Your task to perform on an android device: turn notification dots on Image 0: 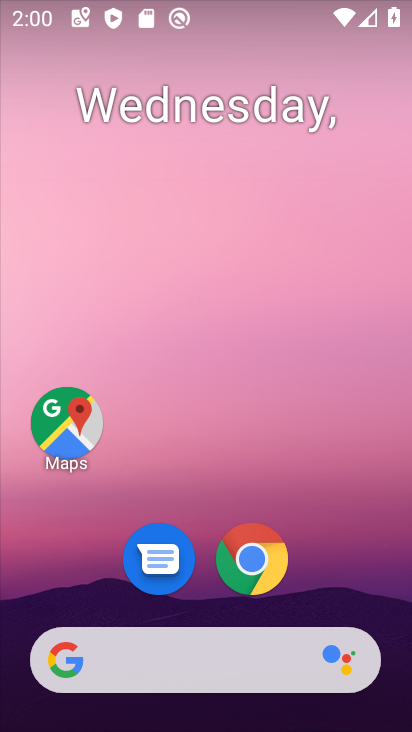
Step 0: press home button
Your task to perform on an android device: turn notification dots on Image 1: 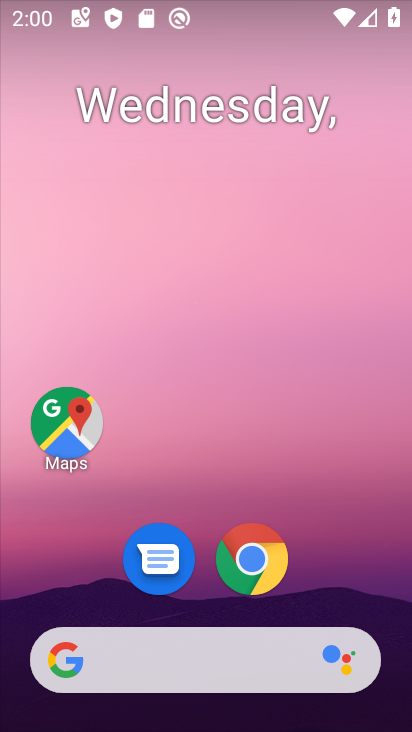
Step 1: drag from (364, 576) to (299, 36)
Your task to perform on an android device: turn notification dots on Image 2: 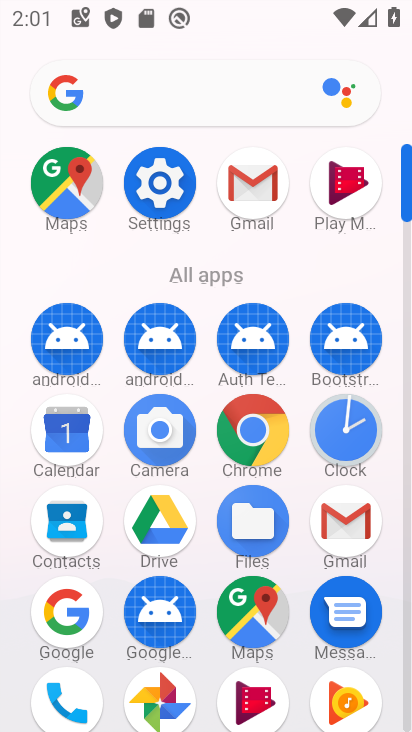
Step 2: click (152, 205)
Your task to perform on an android device: turn notification dots on Image 3: 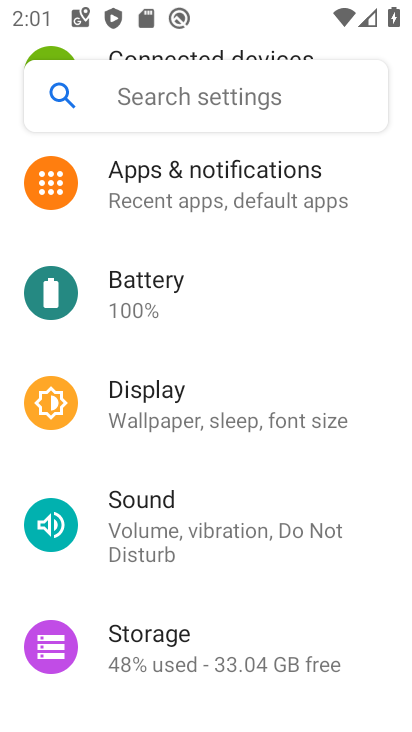
Step 3: drag from (221, 619) to (290, 237)
Your task to perform on an android device: turn notification dots on Image 4: 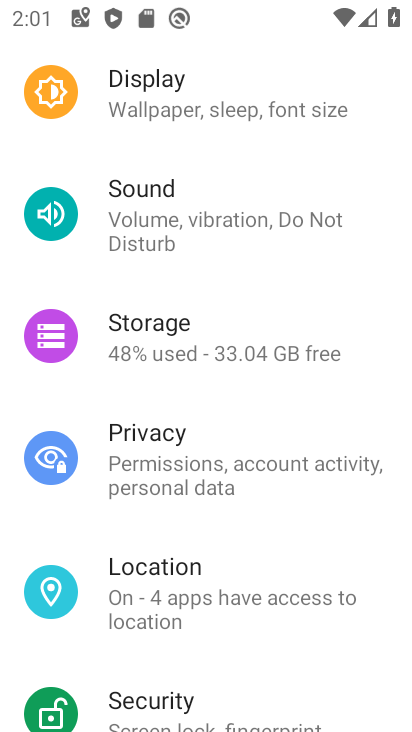
Step 4: drag from (201, 584) to (298, 149)
Your task to perform on an android device: turn notification dots on Image 5: 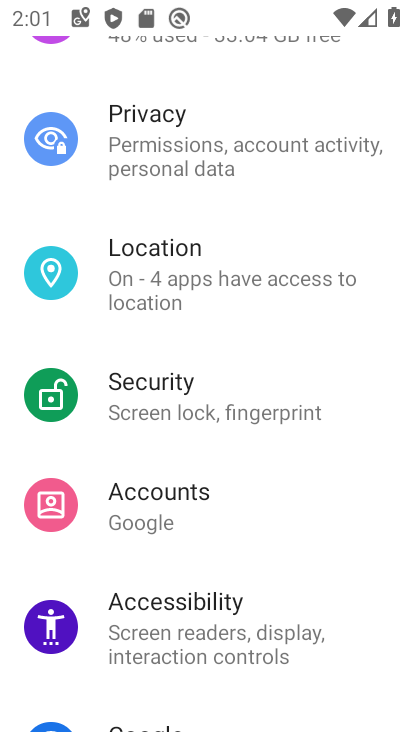
Step 5: drag from (241, 464) to (220, 722)
Your task to perform on an android device: turn notification dots on Image 6: 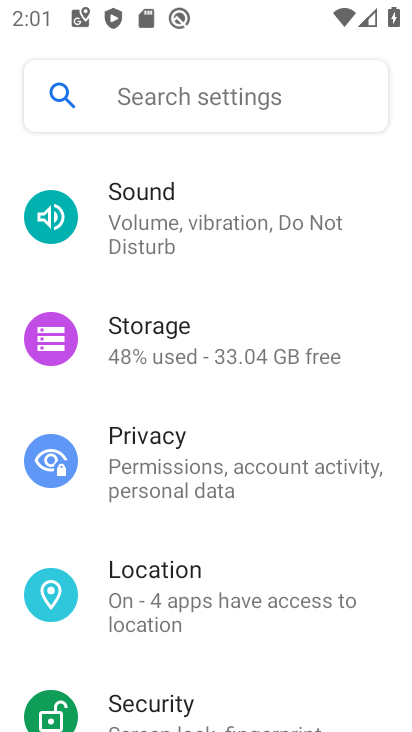
Step 6: drag from (227, 220) to (203, 569)
Your task to perform on an android device: turn notification dots on Image 7: 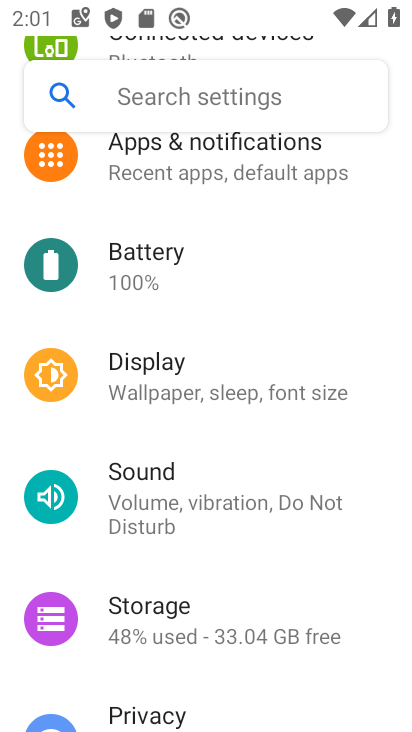
Step 7: click (288, 152)
Your task to perform on an android device: turn notification dots on Image 8: 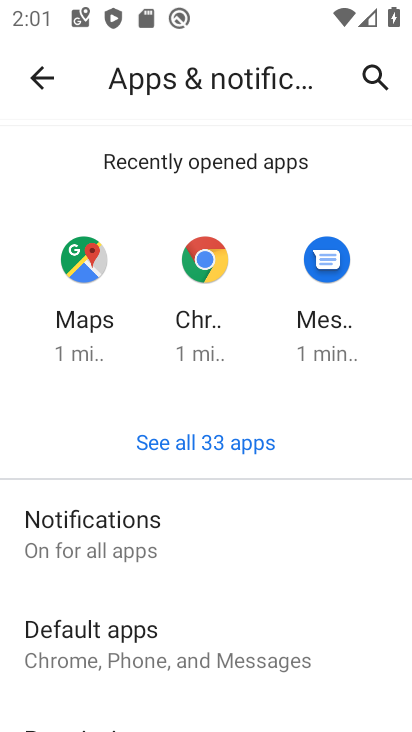
Step 8: click (154, 517)
Your task to perform on an android device: turn notification dots on Image 9: 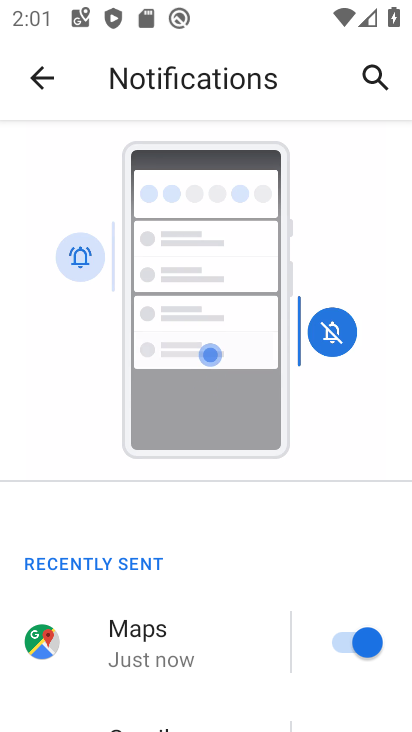
Step 9: drag from (208, 488) to (253, 57)
Your task to perform on an android device: turn notification dots on Image 10: 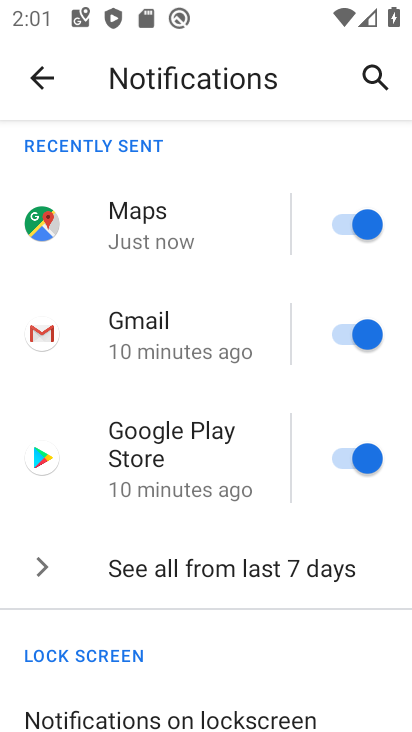
Step 10: drag from (215, 503) to (341, 65)
Your task to perform on an android device: turn notification dots on Image 11: 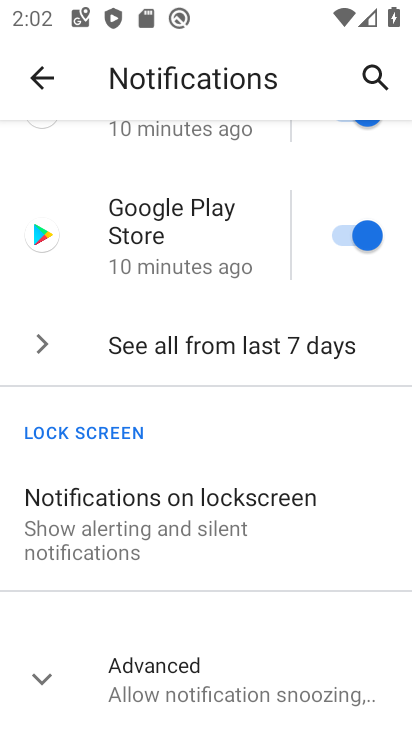
Step 11: drag from (162, 606) to (181, 421)
Your task to perform on an android device: turn notification dots on Image 12: 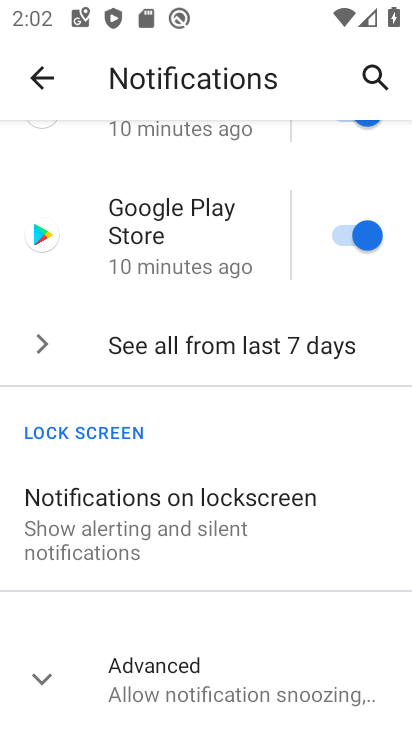
Step 12: click (212, 660)
Your task to perform on an android device: turn notification dots on Image 13: 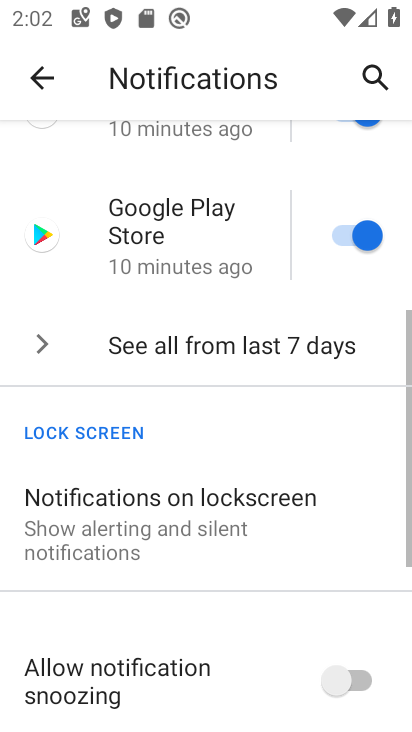
Step 13: drag from (277, 617) to (230, 233)
Your task to perform on an android device: turn notification dots on Image 14: 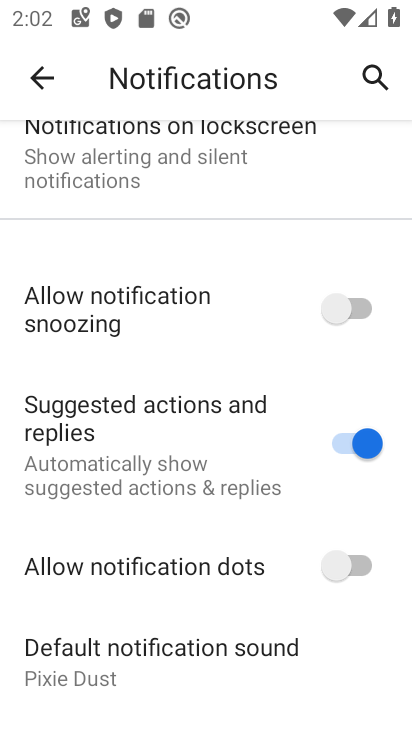
Step 14: click (201, 556)
Your task to perform on an android device: turn notification dots on Image 15: 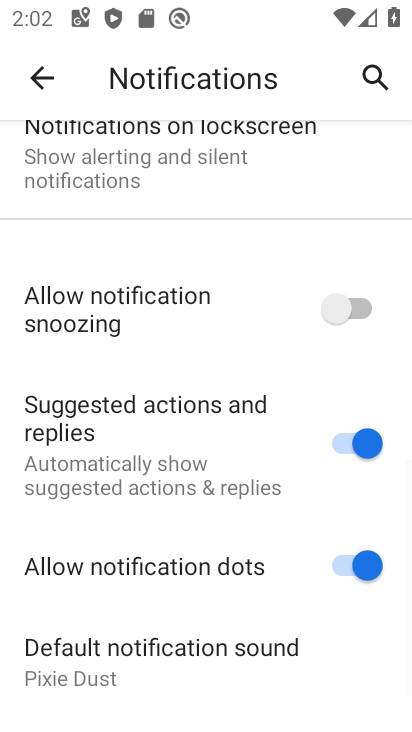
Step 15: task complete